Your task to perform on an android device: Open calendar and show me the second week of next month Image 0: 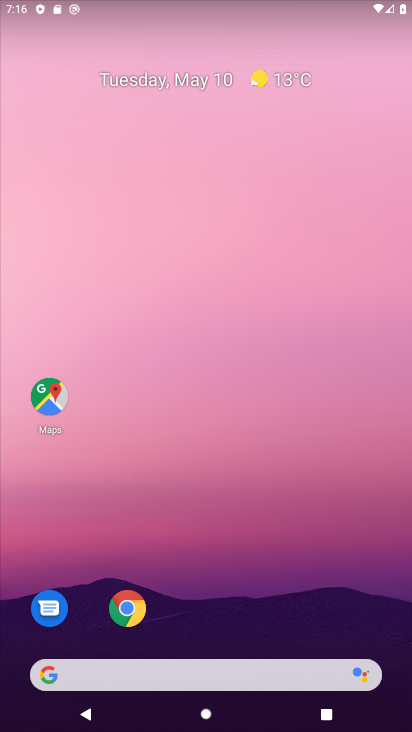
Step 0: drag from (263, 628) to (262, 25)
Your task to perform on an android device: Open calendar and show me the second week of next month Image 1: 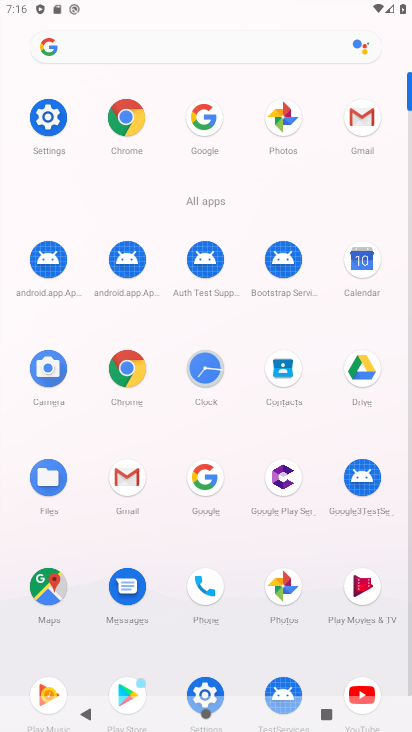
Step 1: click (377, 274)
Your task to perform on an android device: Open calendar and show me the second week of next month Image 2: 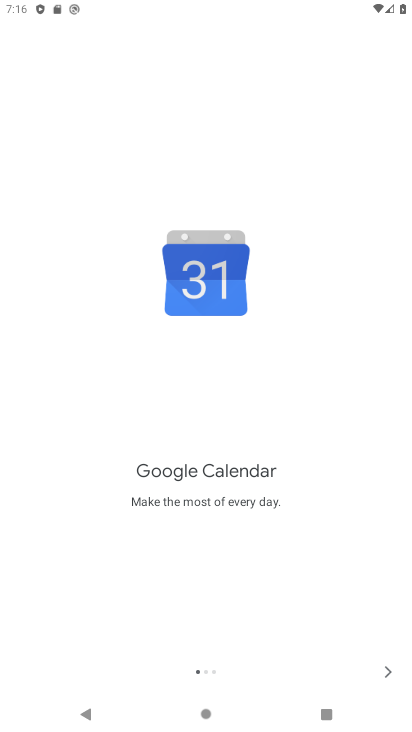
Step 2: click (390, 683)
Your task to perform on an android device: Open calendar and show me the second week of next month Image 3: 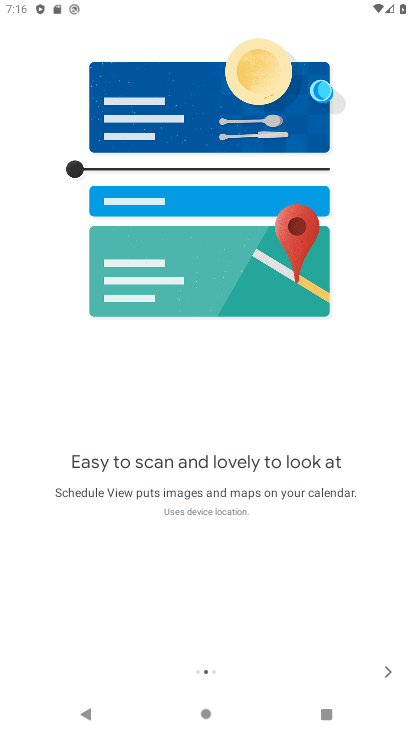
Step 3: click (391, 673)
Your task to perform on an android device: Open calendar and show me the second week of next month Image 4: 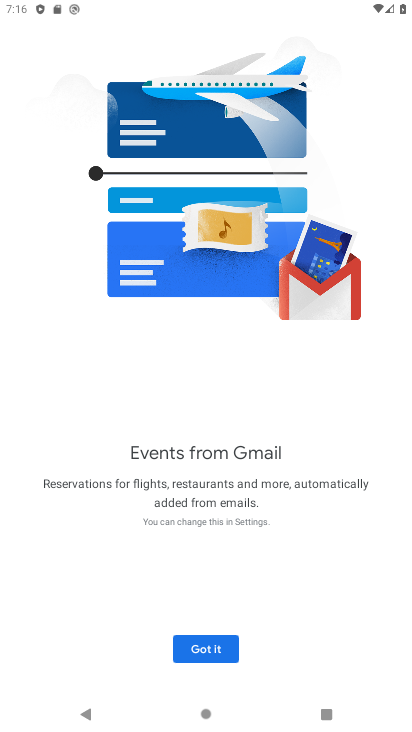
Step 4: click (204, 649)
Your task to perform on an android device: Open calendar and show me the second week of next month Image 5: 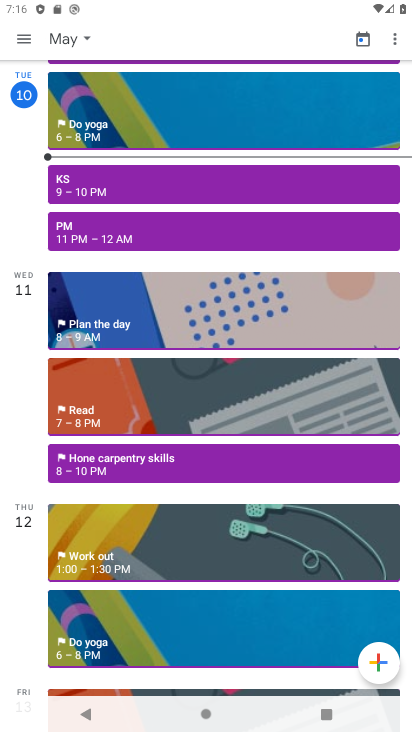
Step 5: click (32, 36)
Your task to perform on an android device: Open calendar and show me the second week of next month Image 6: 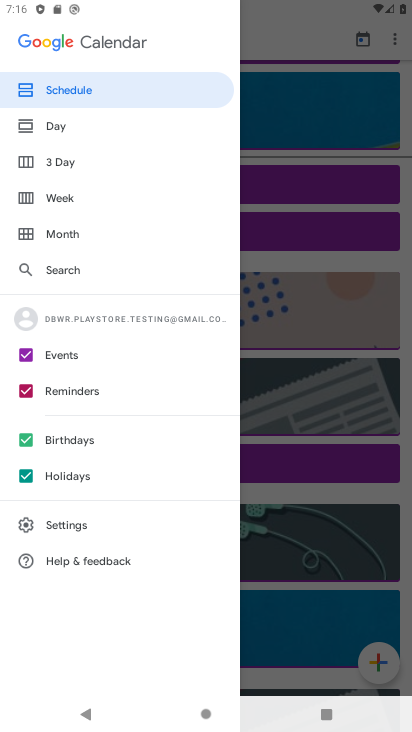
Step 6: click (74, 208)
Your task to perform on an android device: Open calendar and show me the second week of next month Image 7: 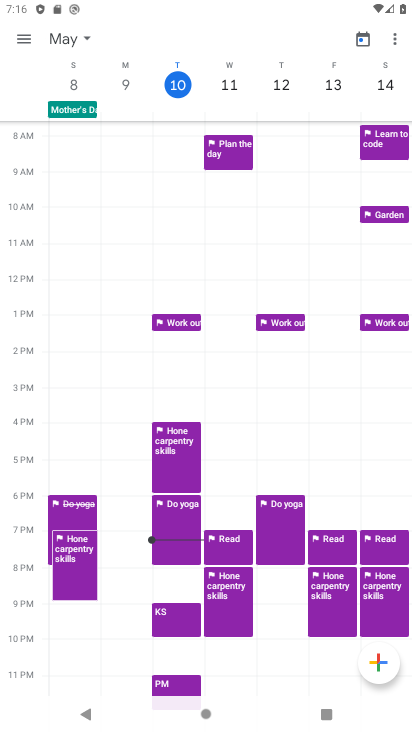
Step 7: click (67, 47)
Your task to perform on an android device: Open calendar and show me the second week of next month Image 8: 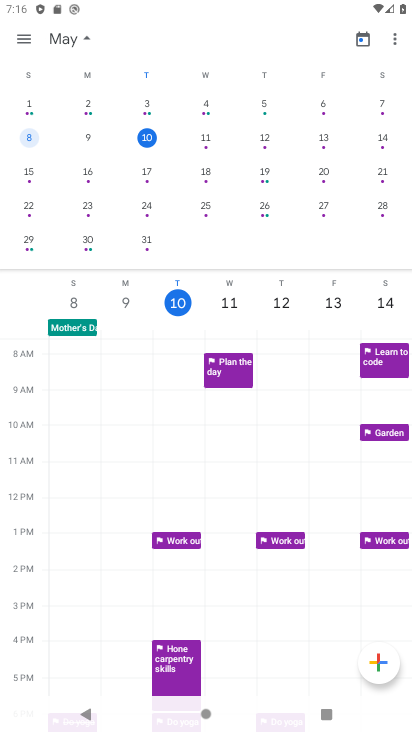
Step 8: drag from (353, 193) to (33, 187)
Your task to perform on an android device: Open calendar and show me the second week of next month Image 9: 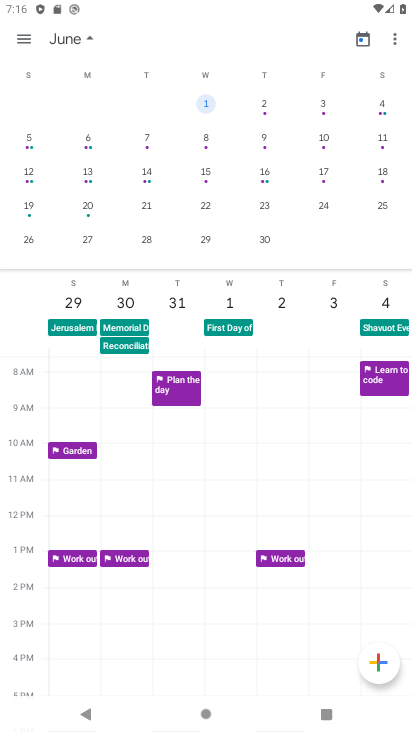
Step 9: click (33, 178)
Your task to perform on an android device: Open calendar and show me the second week of next month Image 10: 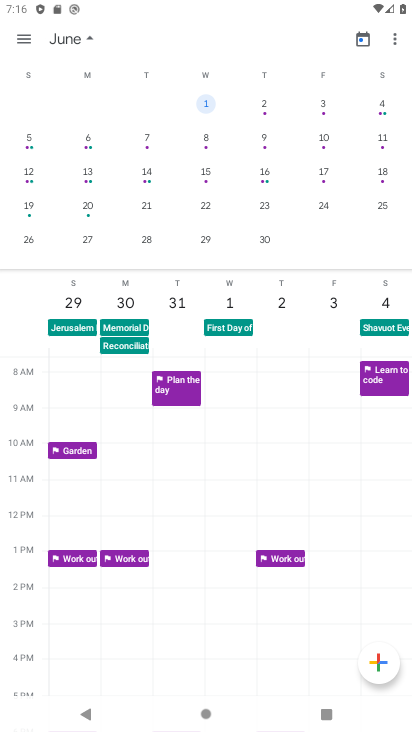
Step 10: click (27, 172)
Your task to perform on an android device: Open calendar and show me the second week of next month Image 11: 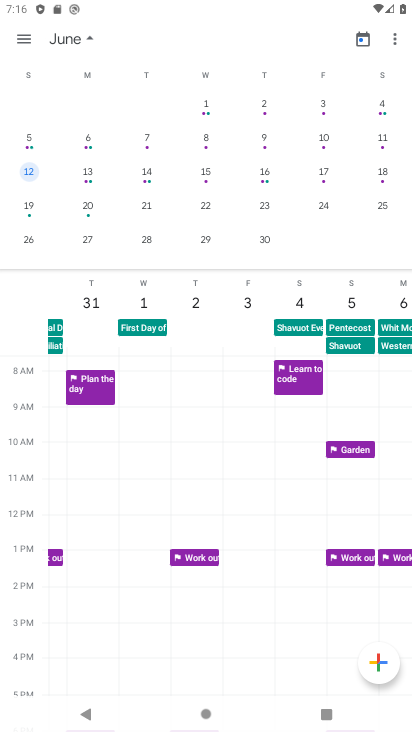
Step 11: click (27, 172)
Your task to perform on an android device: Open calendar and show me the second week of next month Image 12: 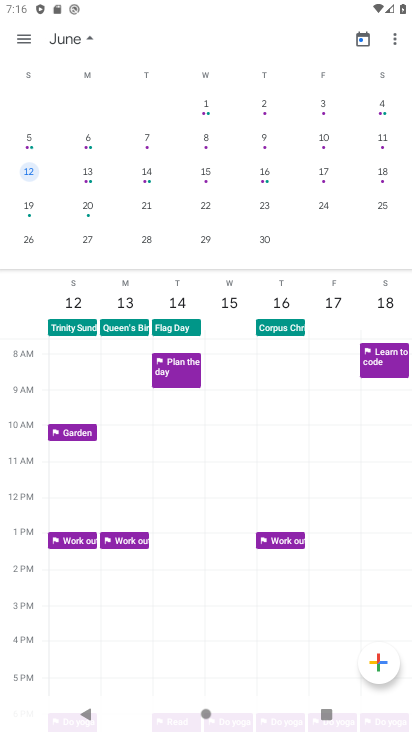
Step 12: task complete